Your task to perform on an android device: Go to battery settings Image 0: 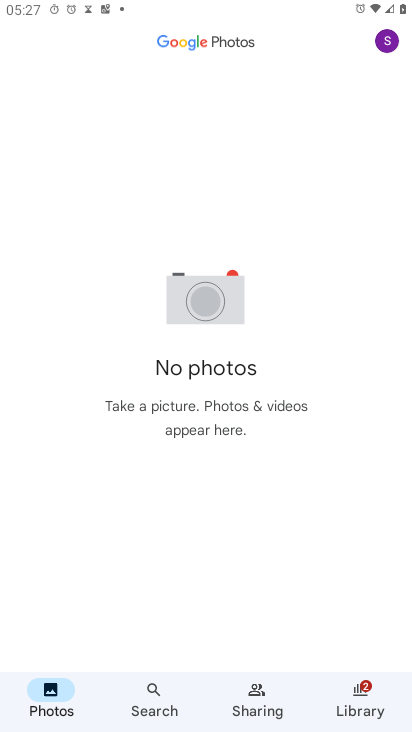
Step 0: press home button
Your task to perform on an android device: Go to battery settings Image 1: 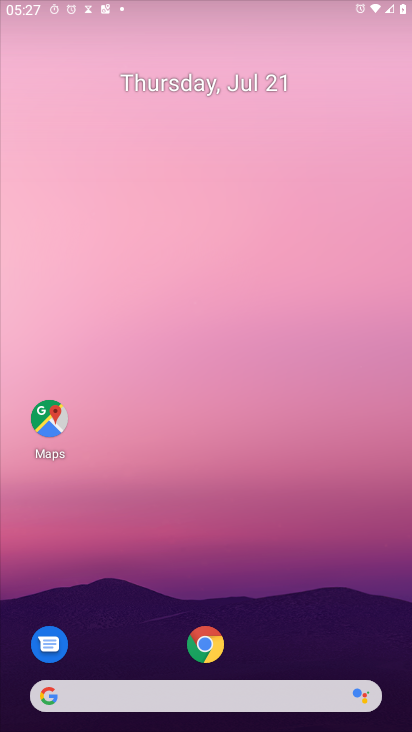
Step 1: drag from (288, 633) to (213, 115)
Your task to perform on an android device: Go to battery settings Image 2: 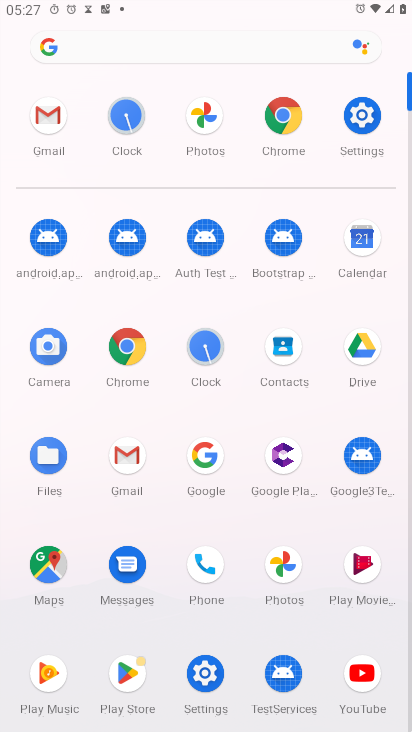
Step 2: click (349, 118)
Your task to perform on an android device: Go to battery settings Image 3: 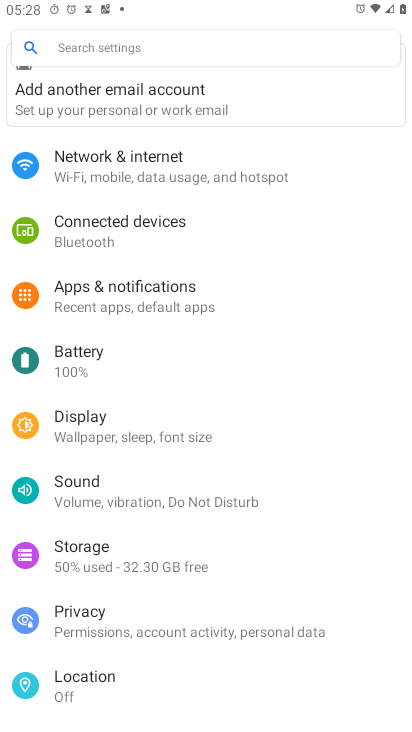
Step 3: click (102, 357)
Your task to perform on an android device: Go to battery settings Image 4: 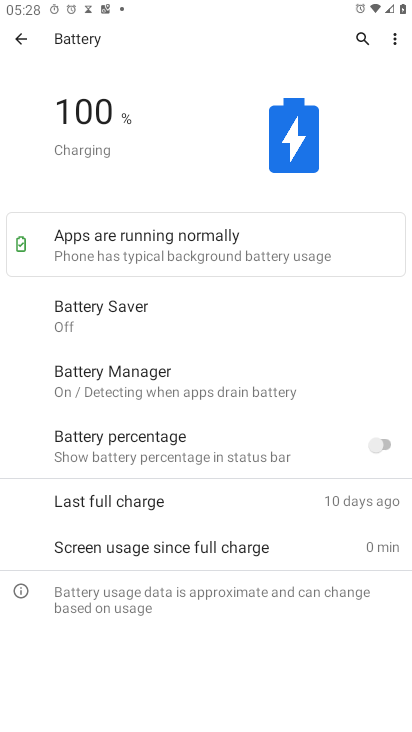
Step 4: task complete